Your task to perform on an android device: turn on wifi Image 0: 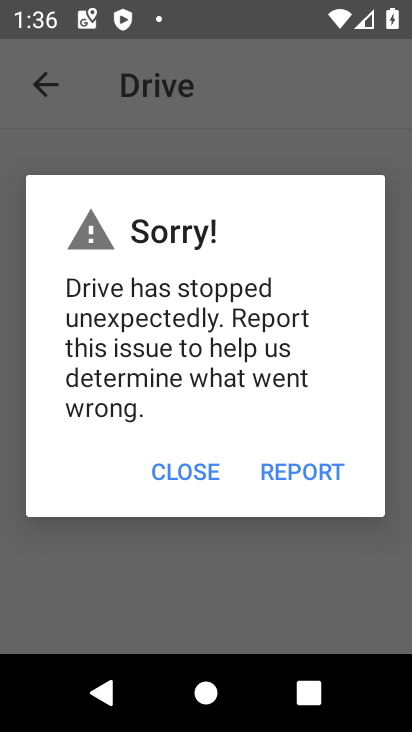
Step 0: press home button
Your task to perform on an android device: turn on wifi Image 1: 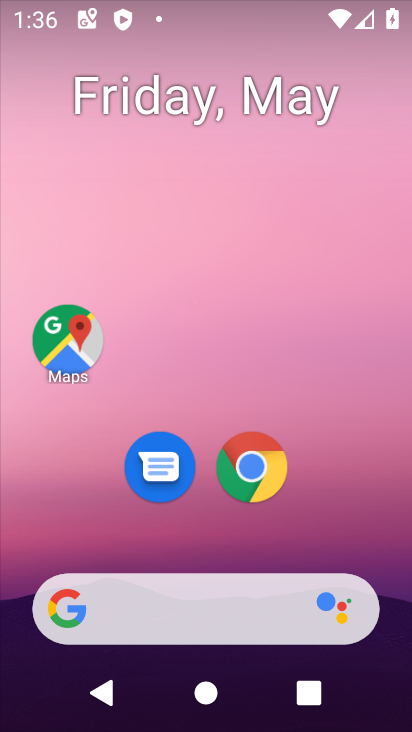
Step 1: drag from (316, 396) to (242, 2)
Your task to perform on an android device: turn on wifi Image 2: 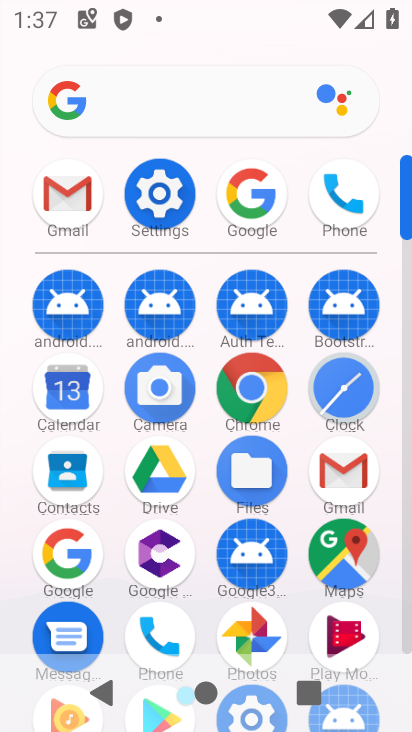
Step 2: click (161, 206)
Your task to perform on an android device: turn on wifi Image 3: 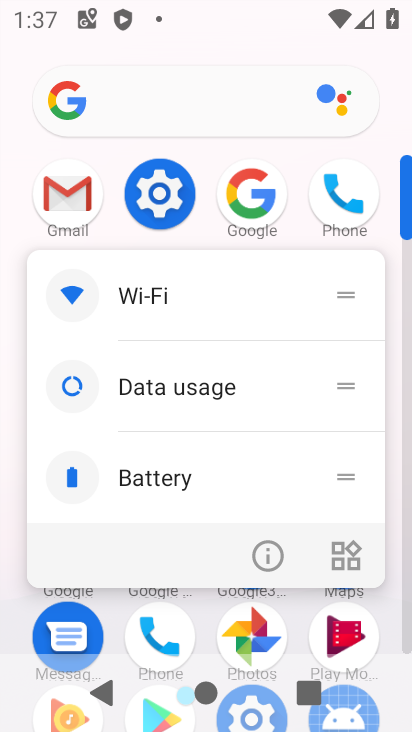
Step 3: click (177, 213)
Your task to perform on an android device: turn on wifi Image 4: 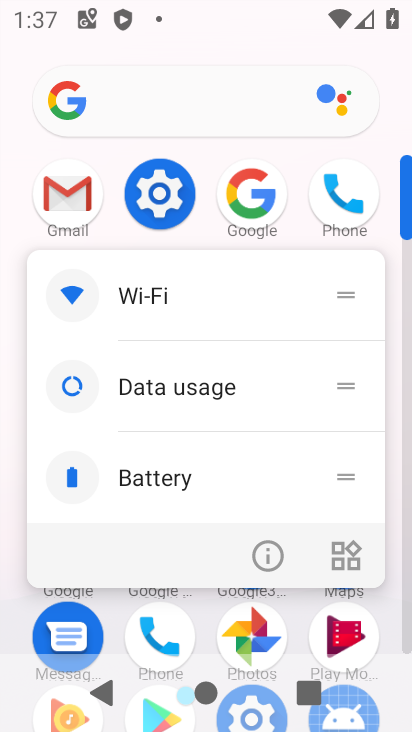
Step 4: click (177, 213)
Your task to perform on an android device: turn on wifi Image 5: 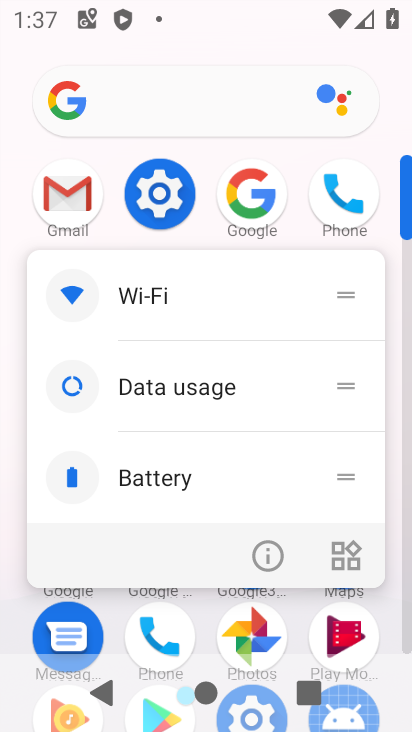
Step 5: click (167, 198)
Your task to perform on an android device: turn on wifi Image 6: 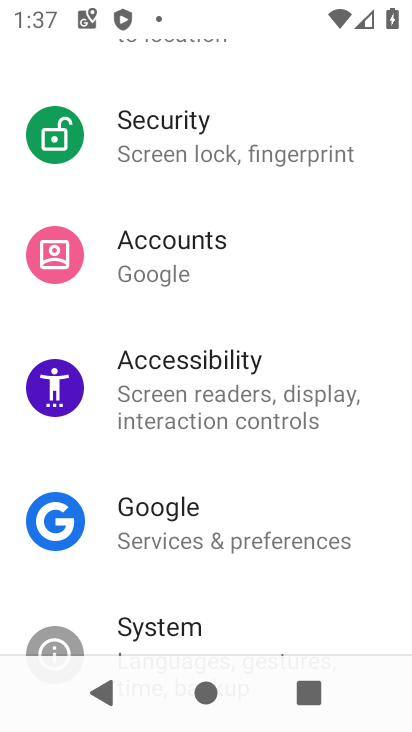
Step 6: drag from (186, 156) to (260, 563)
Your task to perform on an android device: turn on wifi Image 7: 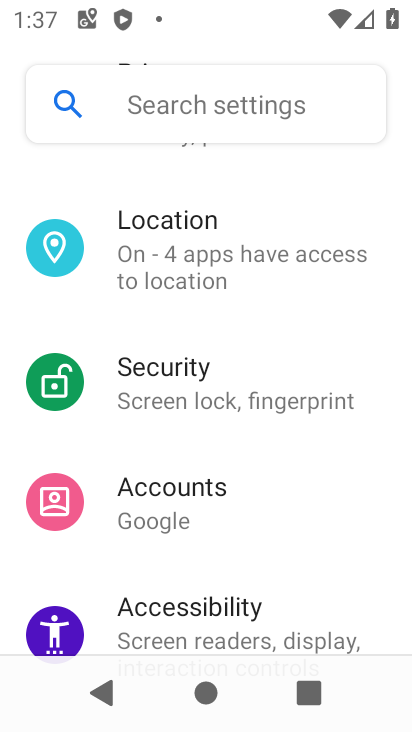
Step 7: drag from (202, 171) to (273, 599)
Your task to perform on an android device: turn on wifi Image 8: 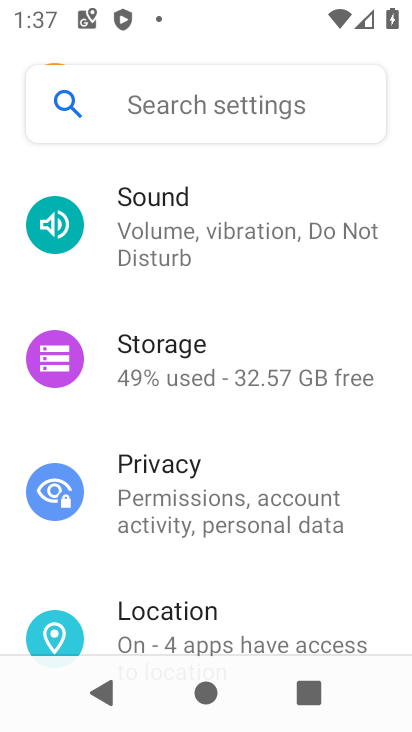
Step 8: drag from (204, 198) to (297, 681)
Your task to perform on an android device: turn on wifi Image 9: 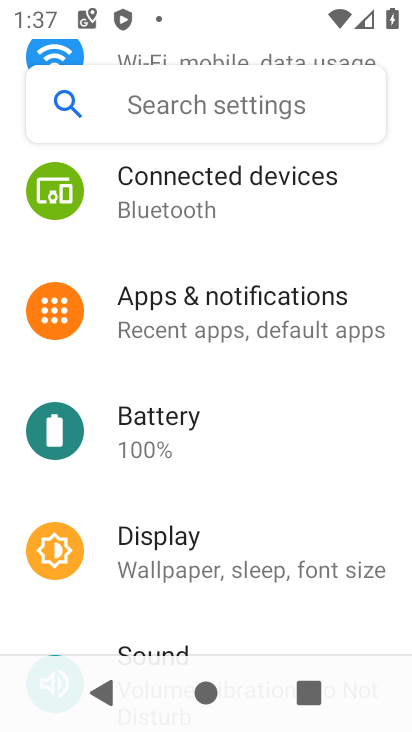
Step 9: drag from (181, 203) to (207, 694)
Your task to perform on an android device: turn on wifi Image 10: 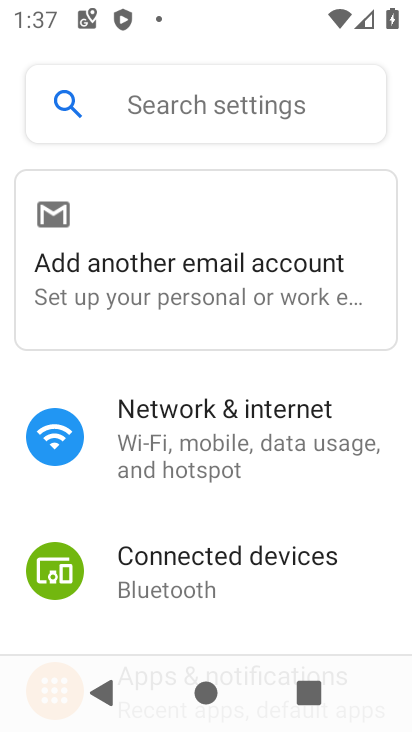
Step 10: click (194, 413)
Your task to perform on an android device: turn on wifi Image 11: 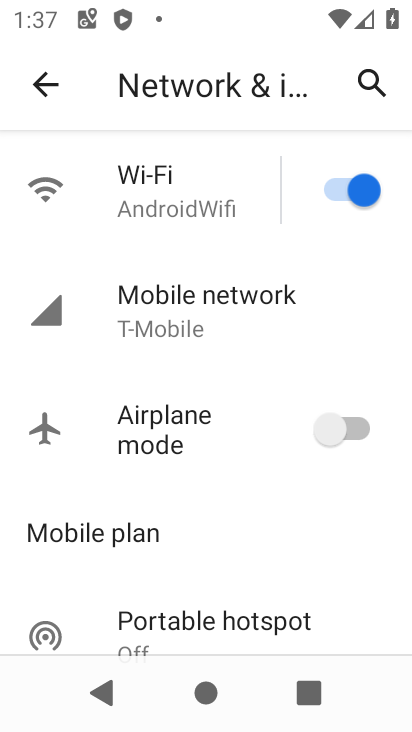
Step 11: task complete